Your task to perform on an android device: Do I have any events this weekend? Image 0: 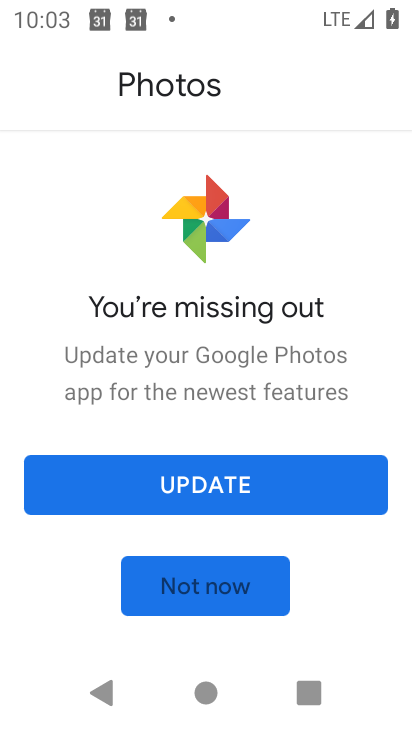
Step 0: press home button
Your task to perform on an android device: Do I have any events this weekend? Image 1: 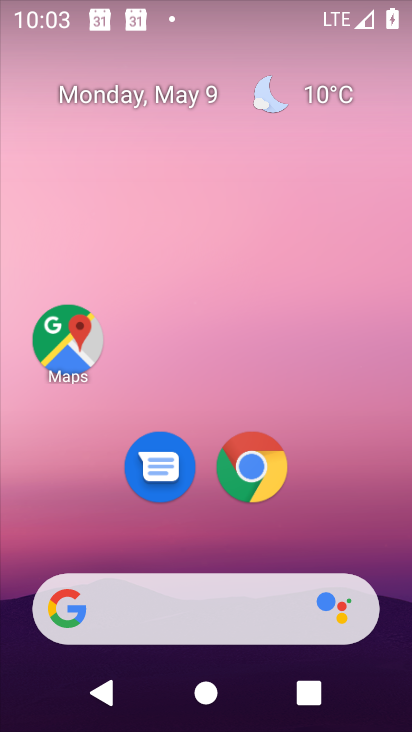
Step 1: drag from (367, 561) to (347, 12)
Your task to perform on an android device: Do I have any events this weekend? Image 2: 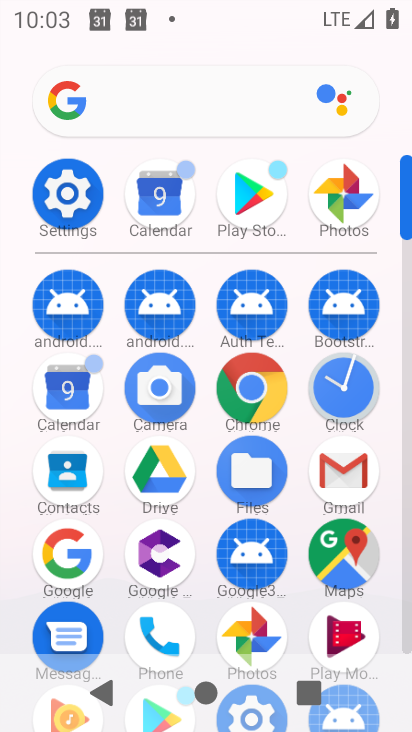
Step 2: click (143, 192)
Your task to perform on an android device: Do I have any events this weekend? Image 3: 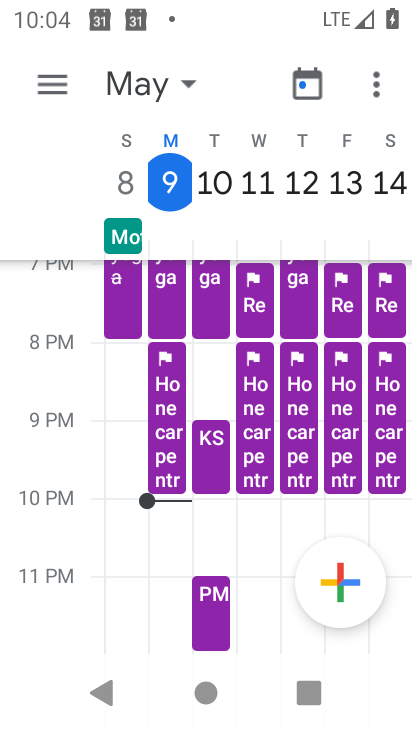
Step 3: click (395, 310)
Your task to perform on an android device: Do I have any events this weekend? Image 4: 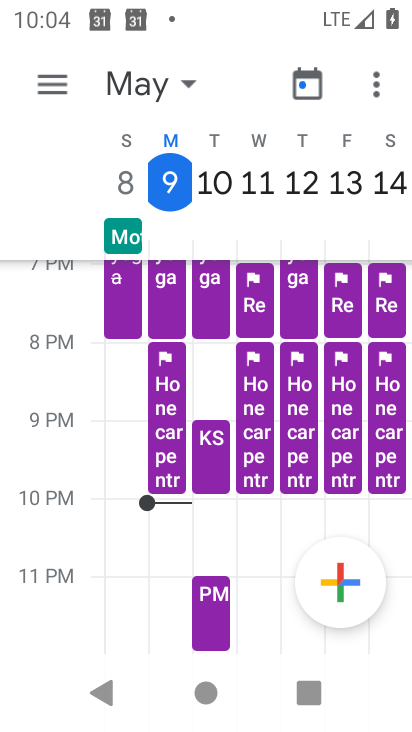
Step 4: click (382, 374)
Your task to perform on an android device: Do I have any events this weekend? Image 5: 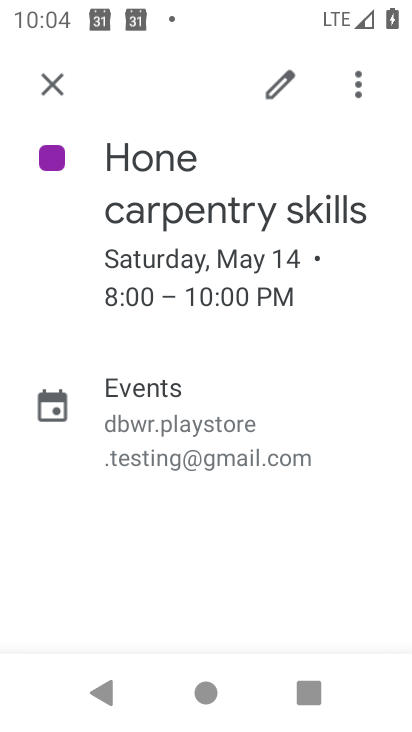
Step 5: task complete